Your task to perform on an android device: Open Android settings Image 0: 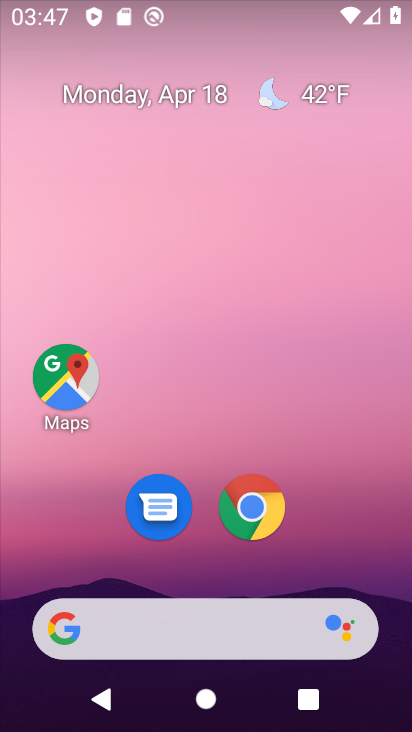
Step 0: drag from (246, 557) to (278, 121)
Your task to perform on an android device: Open Android settings Image 1: 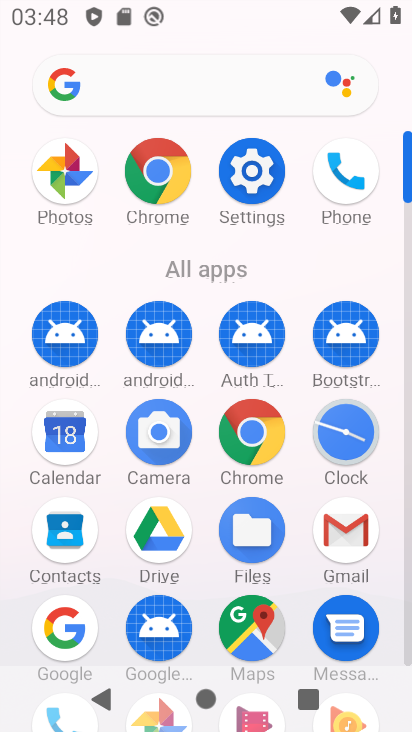
Step 1: click (254, 181)
Your task to perform on an android device: Open Android settings Image 2: 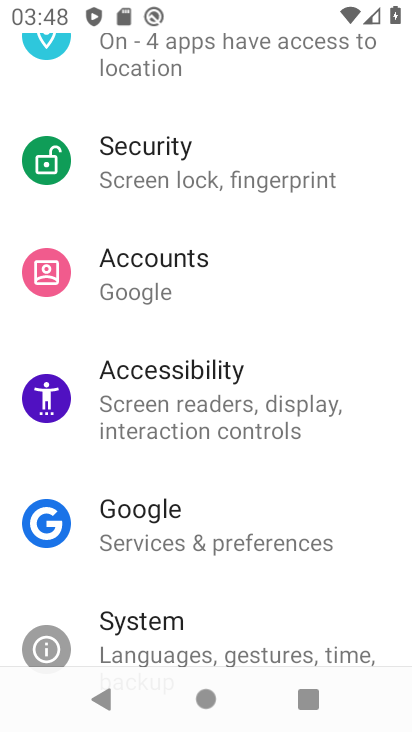
Step 2: drag from (162, 561) to (212, 210)
Your task to perform on an android device: Open Android settings Image 3: 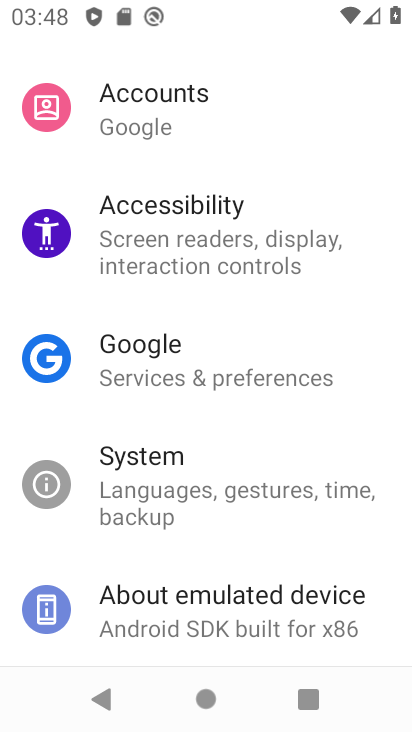
Step 3: drag from (188, 598) to (233, 366)
Your task to perform on an android device: Open Android settings Image 4: 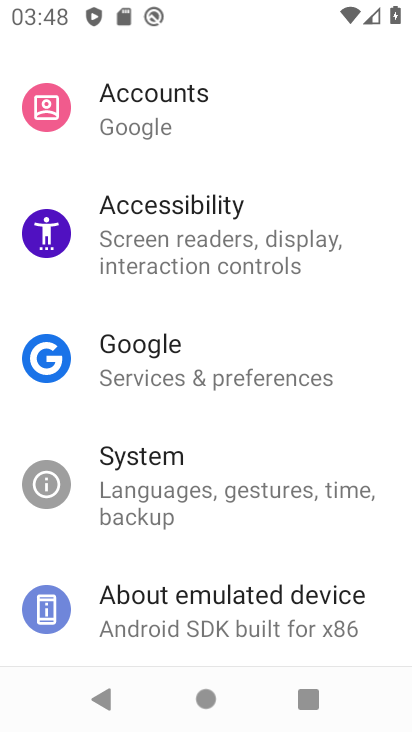
Step 4: drag from (162, 566) to (186, 374)
Your task to perform on an android device: Open Android settings Image 5: 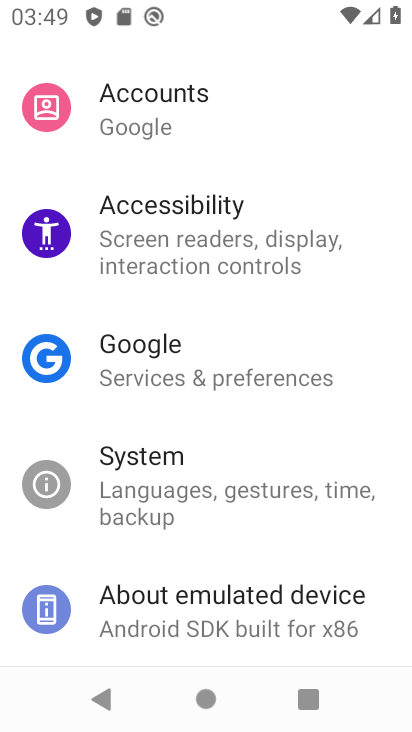
Step 5: drag from (217, 319) to (222, 275)
Your task to perform on an android device: Open Android settings Image 6: 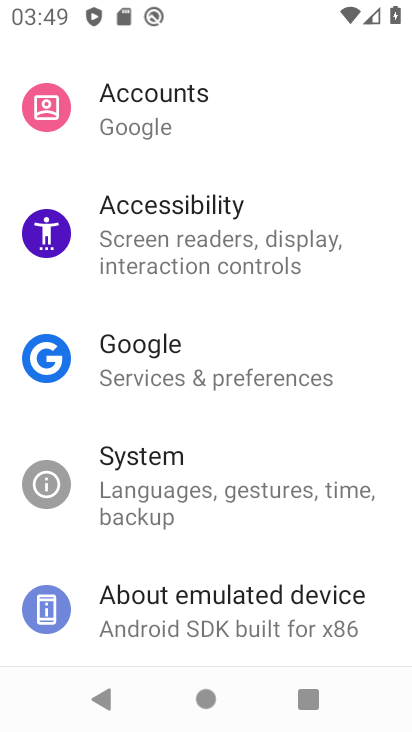
Step 6: click (213, 620)
Your task to perform on an android device: Open Android settings Image 7: 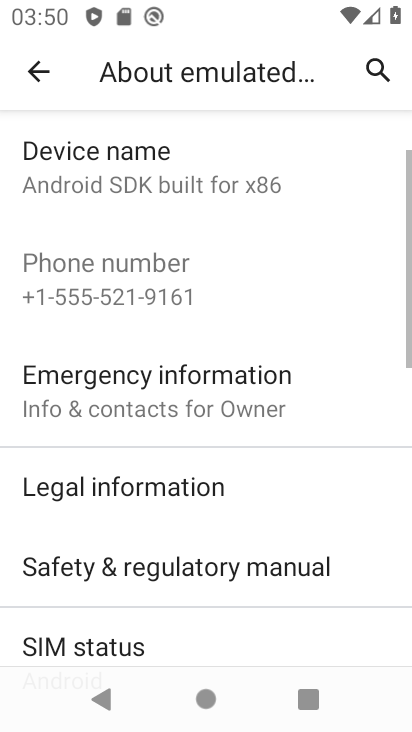
Step 7: drag from (183, 589) to (259, 216)
Your task to perform on an android device: Open Android settings Image 8: 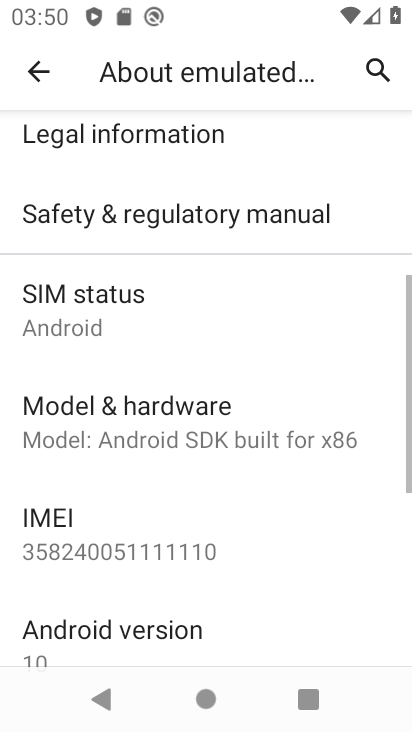
Step 8: drag from (145, 592) to (205, 226)
Your task to perform on an android device: Open Android settings Image 9: 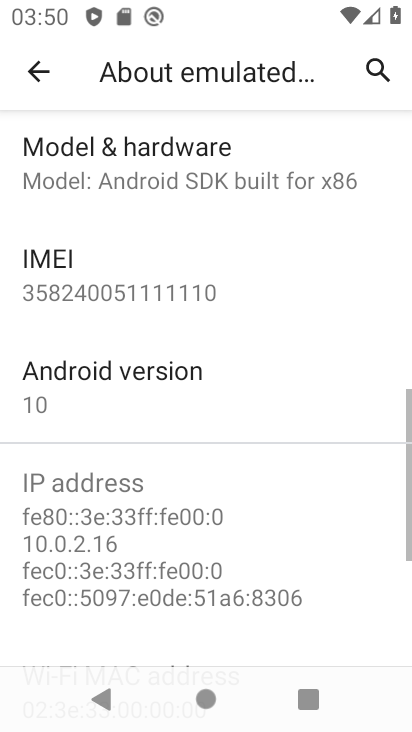
Step 9: drag from (207, 604) to (260, 331)
Your task to perform on an android device: Open Android settings Image 10: 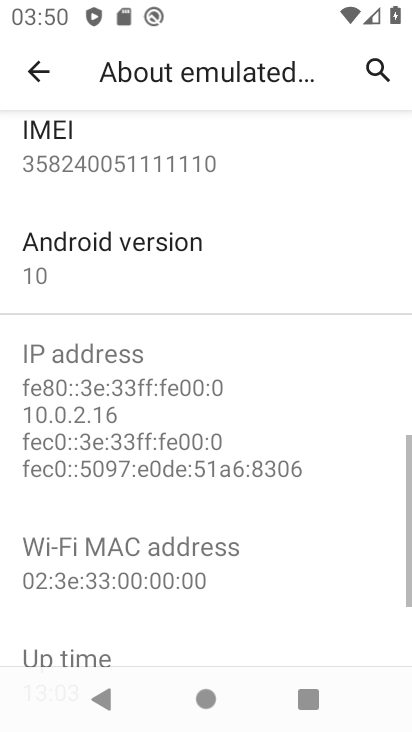
Step 10: click (100, 247)
Your task to perform on an android device: Open Android settings Image 11: 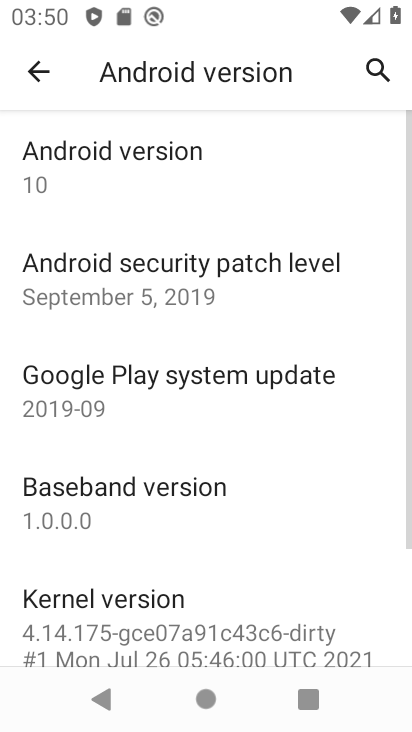
Step 11: task complete